Your task to perform on an android device: Go to Maps Image 0: 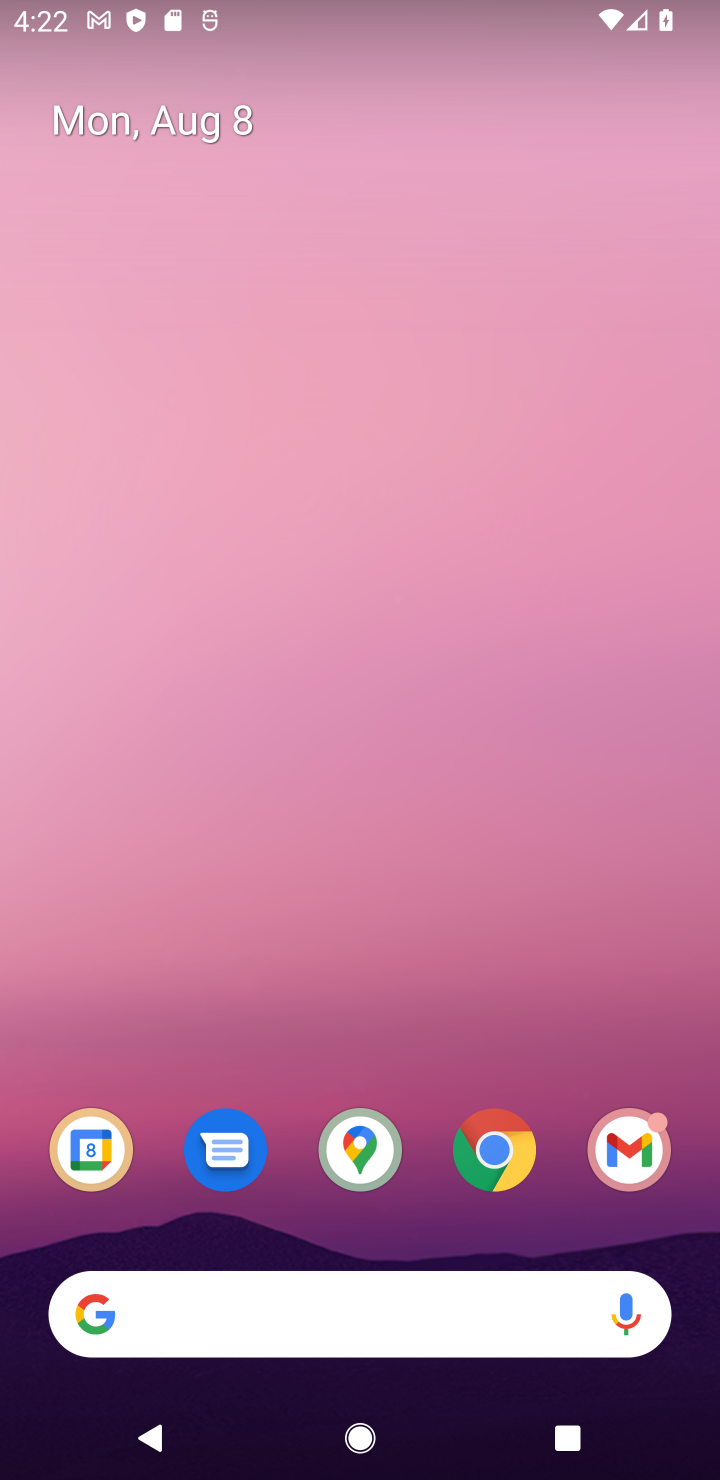
Step 0: click (402, 1172)
Your task to perform on an android device: Go to Maps Image 1: 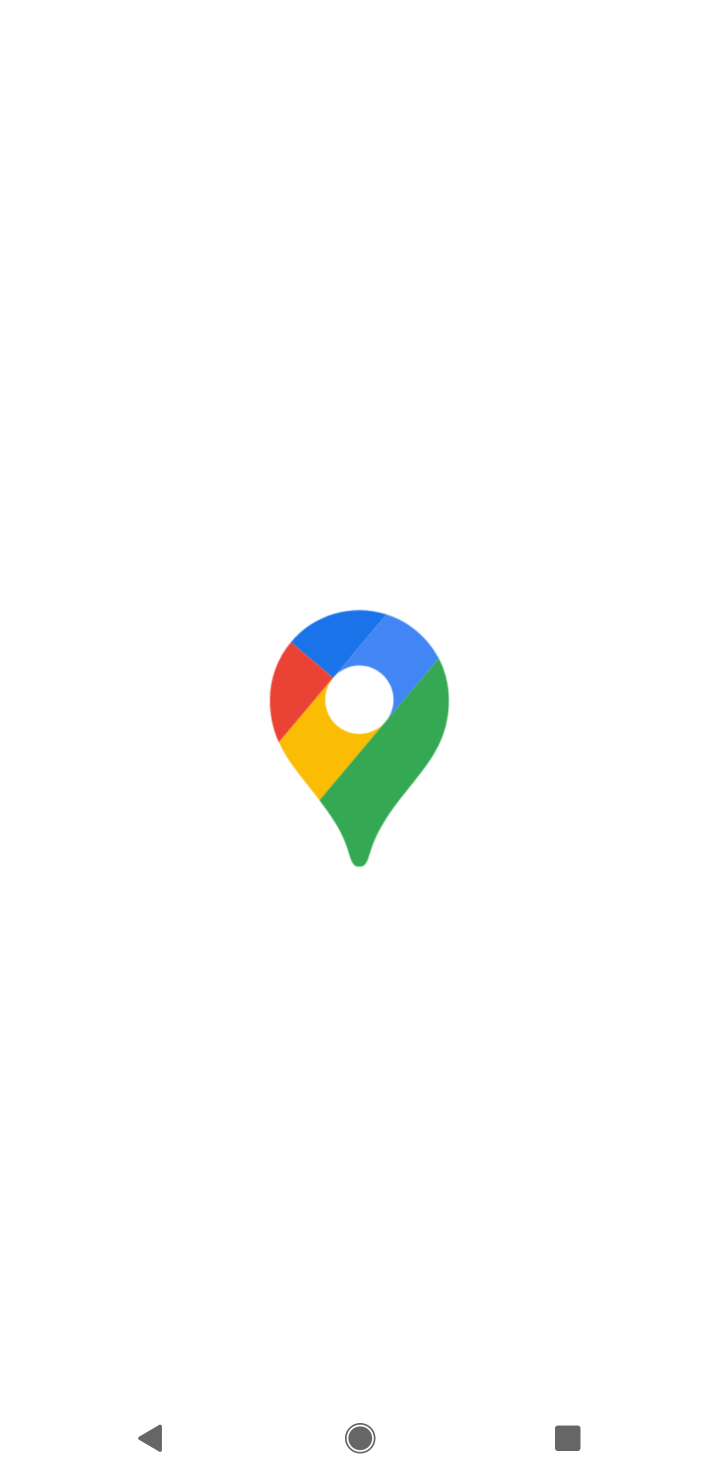
Step 1: task complete